Your task to perform on an android device: Go to Maps Image 0: 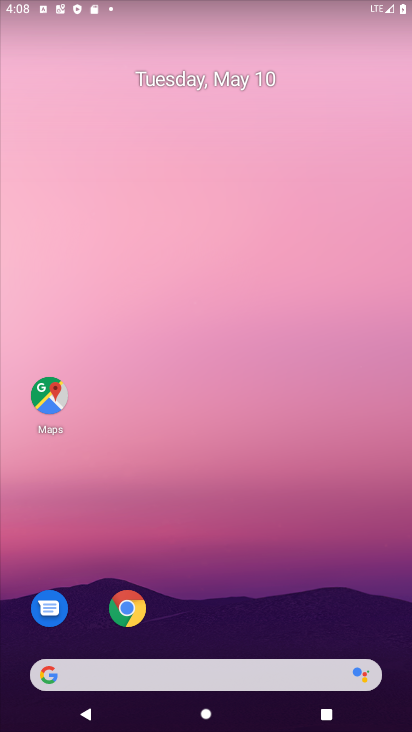
Step 0: click (49, 392)
Your task to perform on an android device: Go to Maps Image 1: 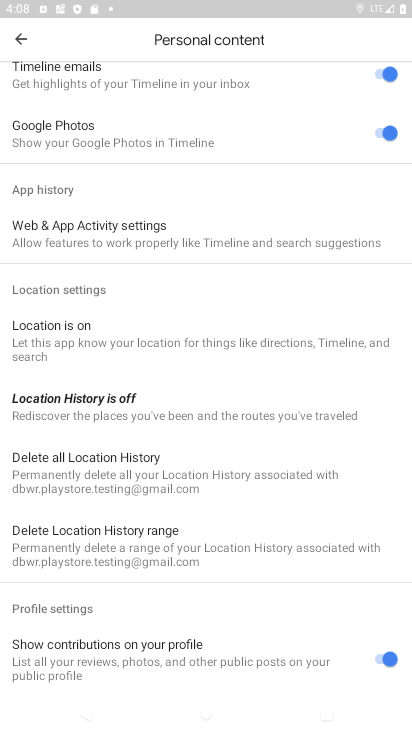
Step 1: task complete